Your task to perform on an android device: Open calendar and show me the fourth week of next month Image 0: 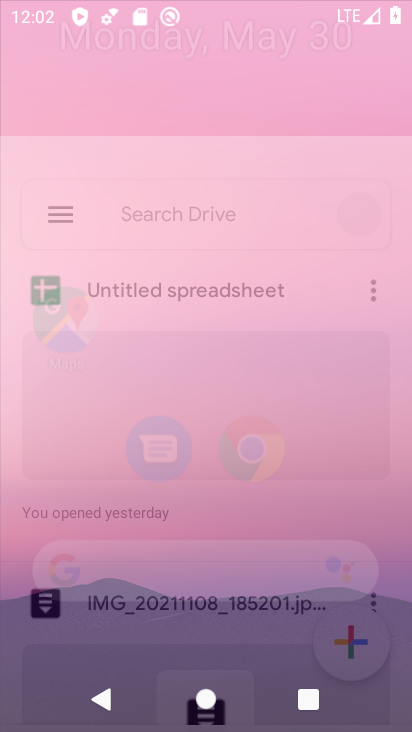
Step 0: drag from (322, 335) to (288, 63)
Your task to perform on an android device: Open calendar and show me the fourth week of next month Image 1: 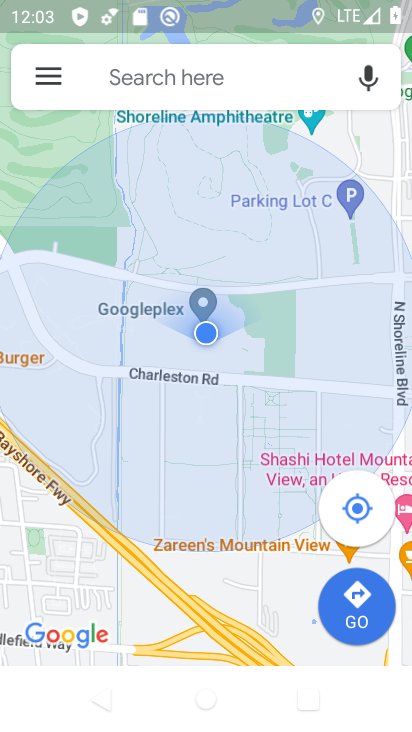
Step 1: press home button
Your task to perform on an android device: Open calendar and show me the fourth week of next month Image 2: 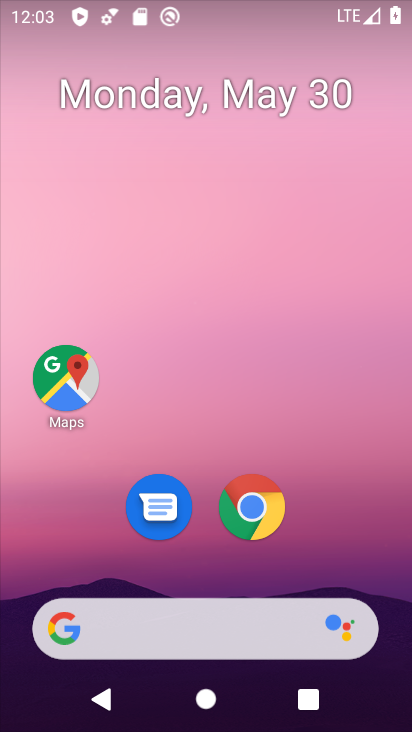
Step 2: drag from (344, 544) to (284, 48)
Your task to perform on an android device: Open calendar and show me the fourth week of next month Image 3: 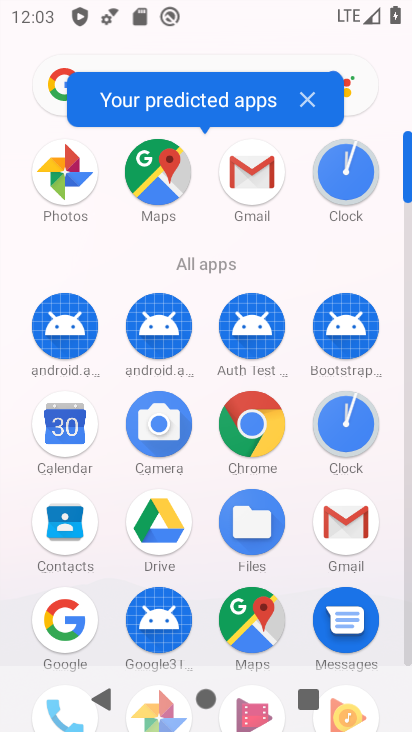
Step 3: click (53, 418)
Your task to perform on an android device: Open calendar and show me the fourth week of next month Image 4: 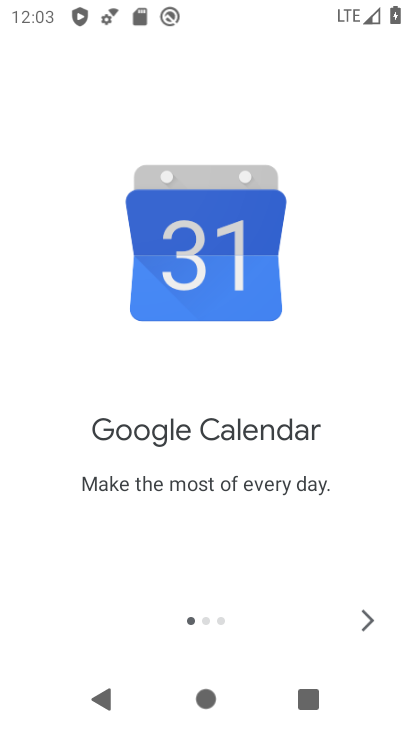
Step 4: click (354, 609)
Your task to perform on an android device: Open calendar and show me the fourth week of next month Image 5: 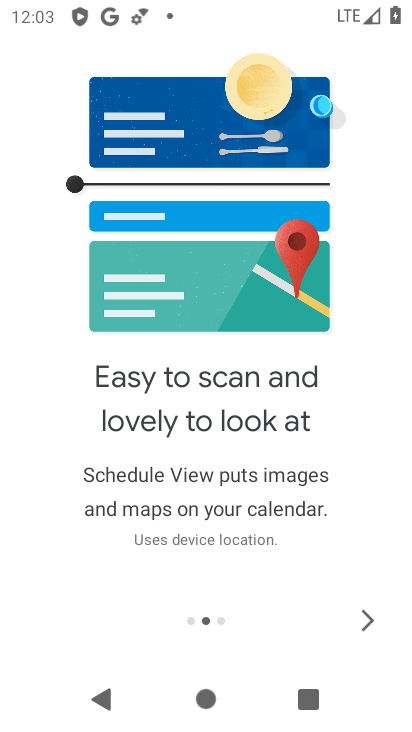
Step 5: click (354, 609)
Your task to perform on an android device: Open calendar and show me the fourth week of next month Image 6: 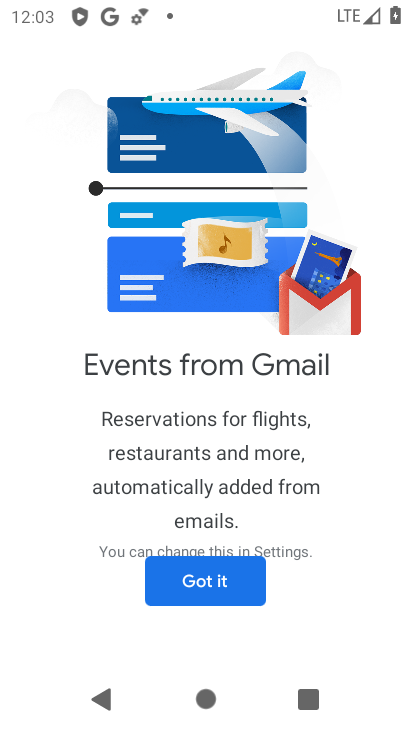
Step 6: click (230, 587)
Your task to perform on an android device: Open calendar and show me the fourth week of next month Image 7: 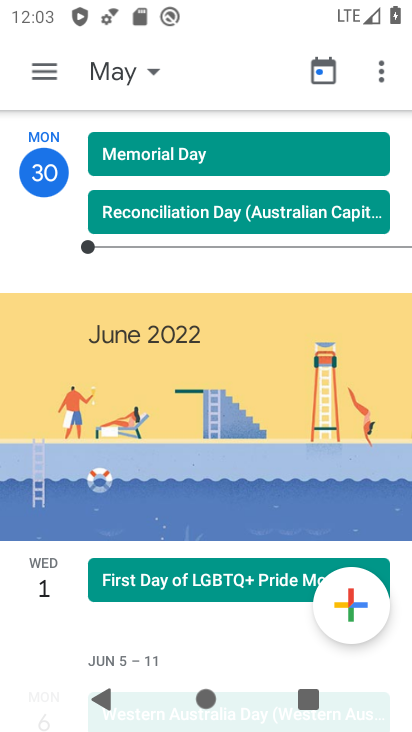
Step 7: click (143, 63)
Your task to perform on an android device: Open calendar and show me the fourth week of next month Image 8: 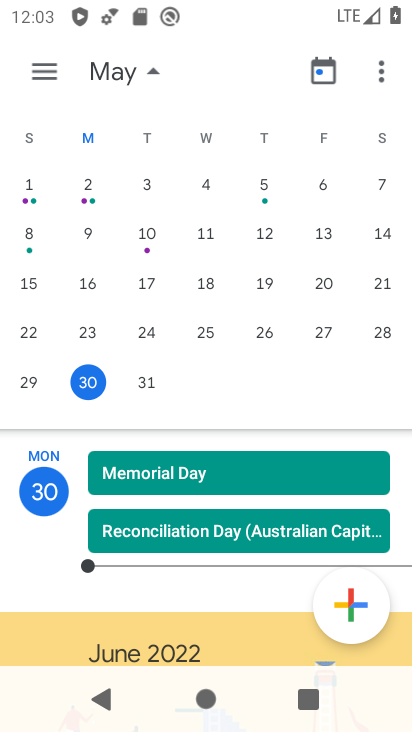
Step 8: drag from (347, 220) to (50, 276)
Your task to perform on an android device: Open calendar and show me the fourth week of next month Image 9: 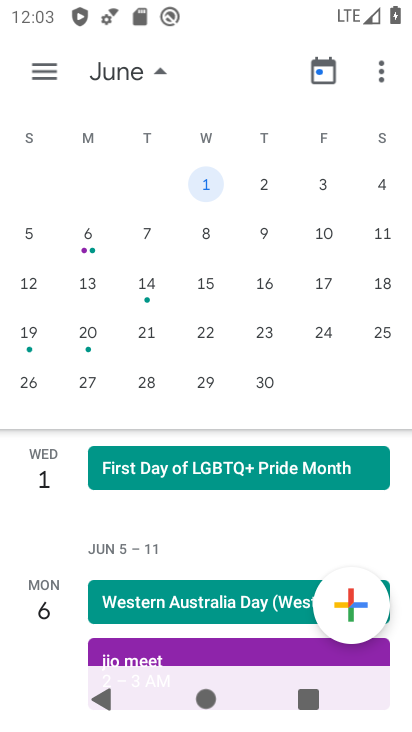
Step 9: click (93, 376)
Your task to perform on an android device: Open calendar and show me the fourth week of next month Image 10: 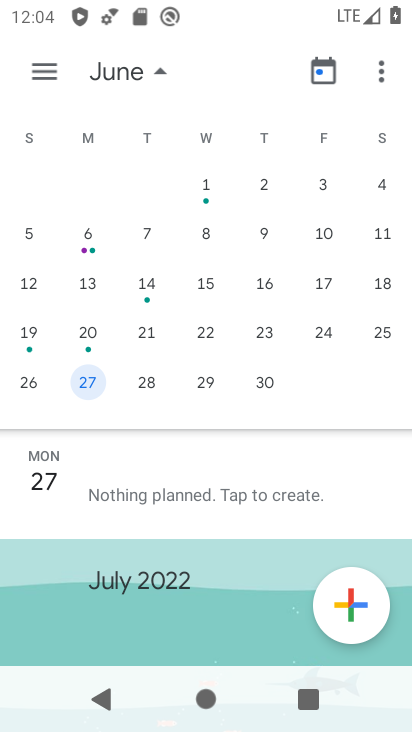
Step 10: task complete